Your task to perform on an android device: refresh tabs in the chrome app Image 0: 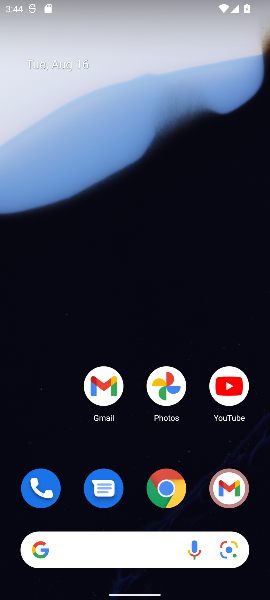
Step 0: click (169, 486)
Your task to perform on an android device: refresh tabs in the chrome app Image 1: 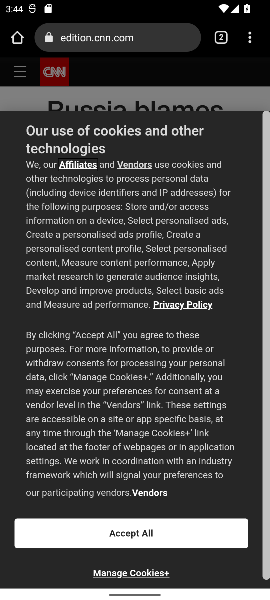
Step 1: click (251, 40)
Your task to perform on an android device: refresh tabs in the chrome app Image 2: 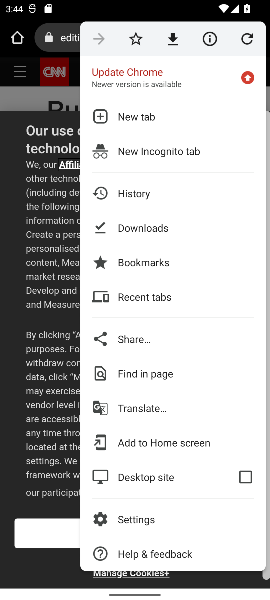
Step 2: click (251, 41)
Your task to perform on an android device: refresh tabs in the chrome app Image 3: 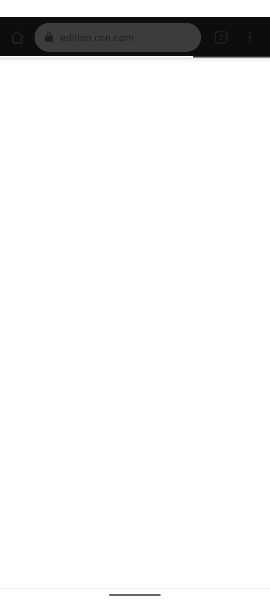
Step 3: task complete